Your task to perform on an android device: Open settings Image 0: 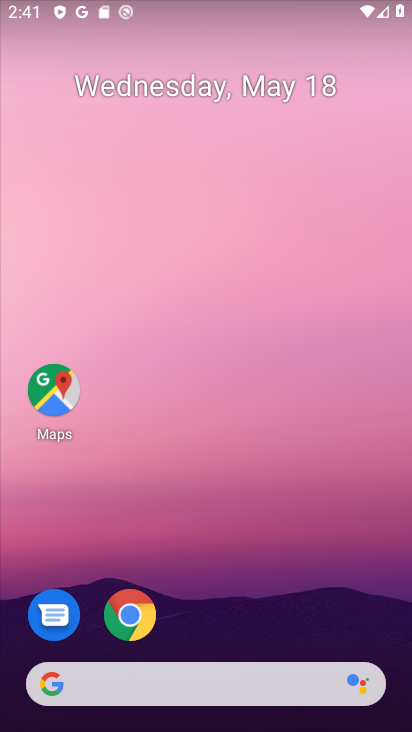
Step 0: drag from (326, 594) to (264, 197)
Your task to perform on an android device: Open settings Image 1: 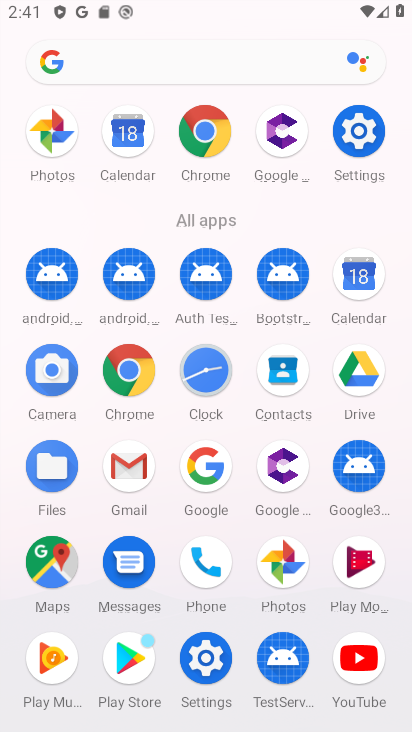
Step 1: click (355, 129)
Your task to perform on an android device: Open settings Image 2: 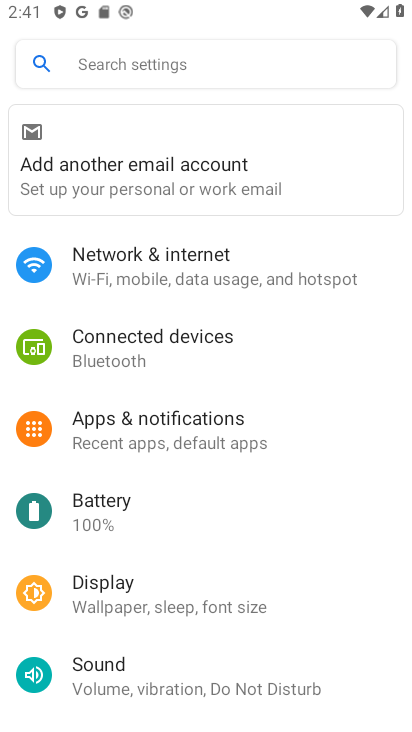
Step 2: task complete